Your task to perform on an android device: set the timer Image 0: 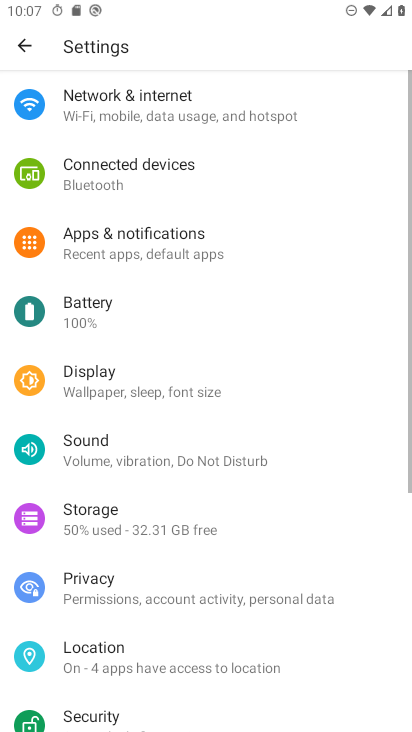
Step 0: press home button
Your task to perform on an android device: set the timer Image 1: 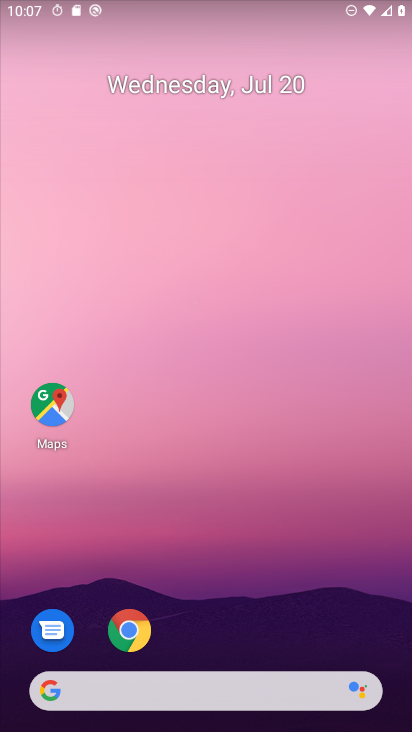
Step 1: drag from (239, 649) to (216, 359)
Your task to perform on an android device: set the timer Image 2: 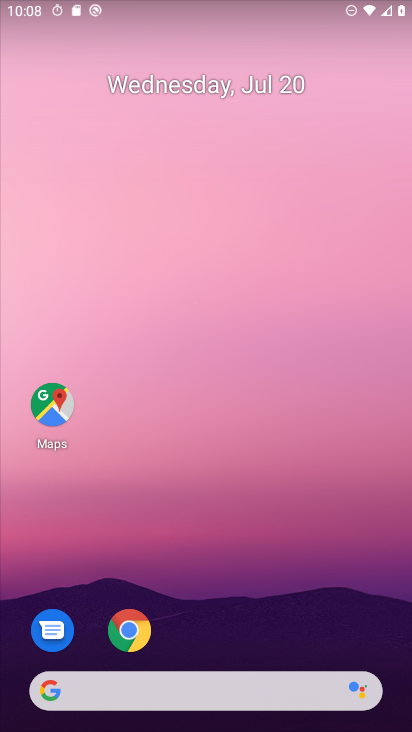
Step 2: drag from (216, 680) to (221, 100)
Your task to perform on an android device: set the timer Image 3: 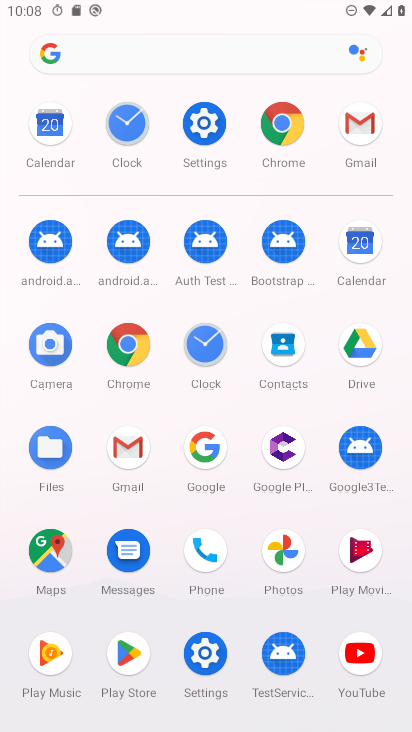
Step 3: click (133, 143)
Your task to perform on an android device: set the timer Image 4: 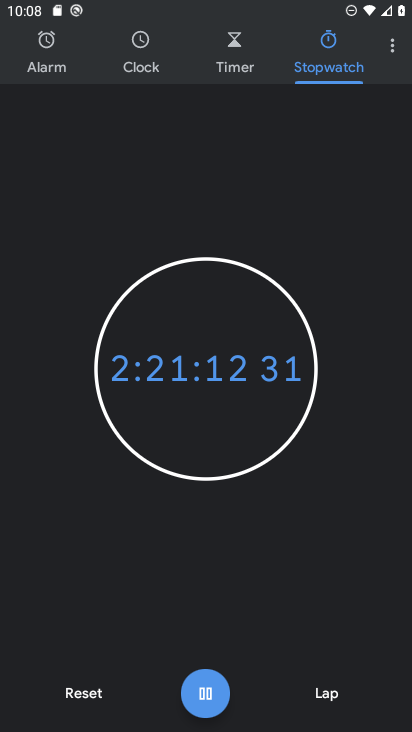
Step 4: click (220, 60)
Your task to perform on an android device: set the timer Image 5: 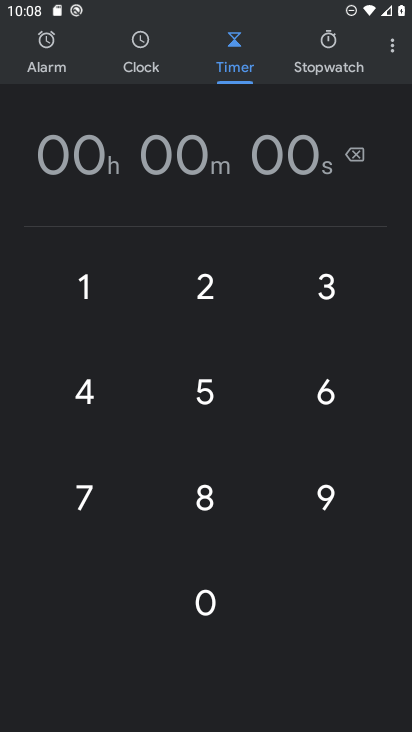
Step 5: click (220, 294)
Your task to perform on an android device: set the timer Image 6: 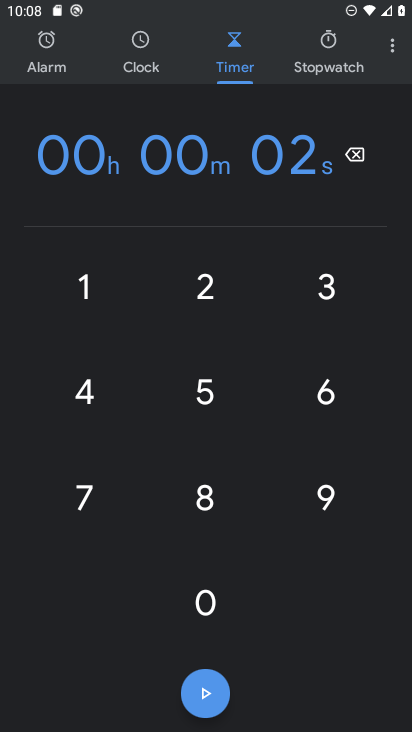
Step 6: click (209, 695)
Your task to perform on an android device: set the timer Image 7: 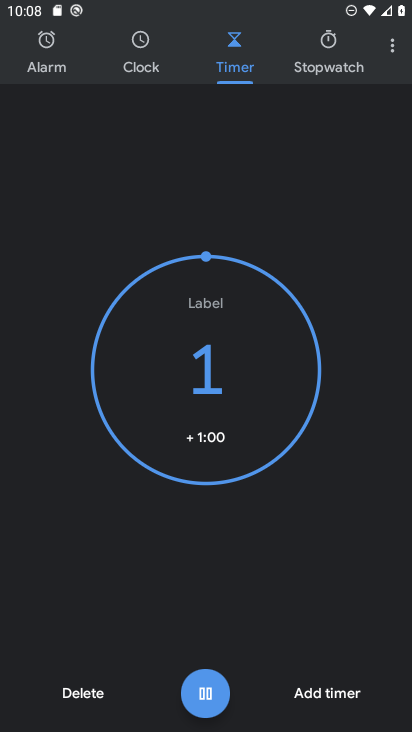
Step 7: task complete